Your task to perform on an android device: turn pop-ups on in chrome Image 0: 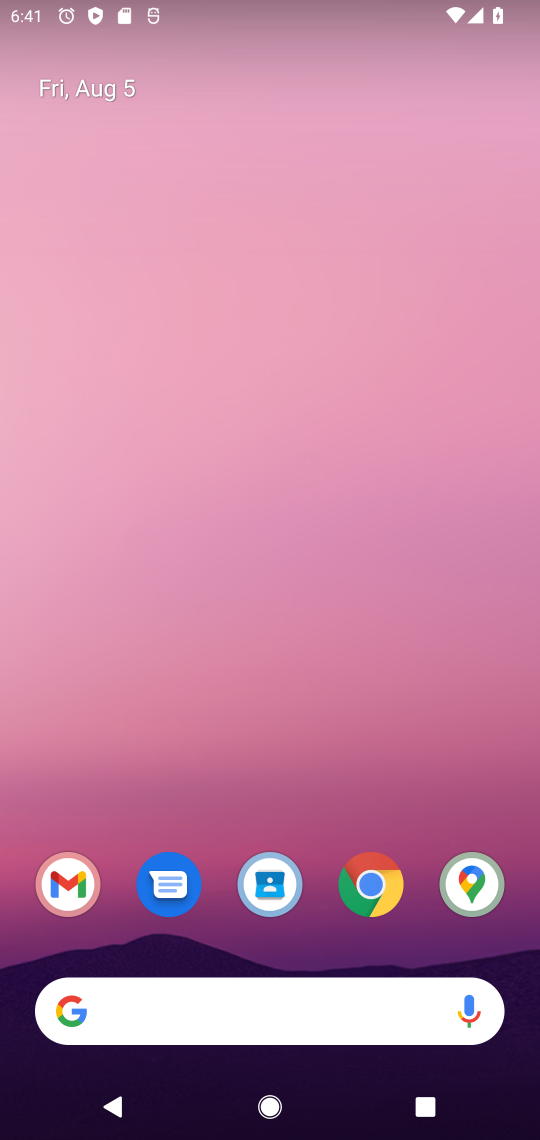
Step 0: press home button
Your task to perform on an android device: turn pop-ups on in chrome Image 1: 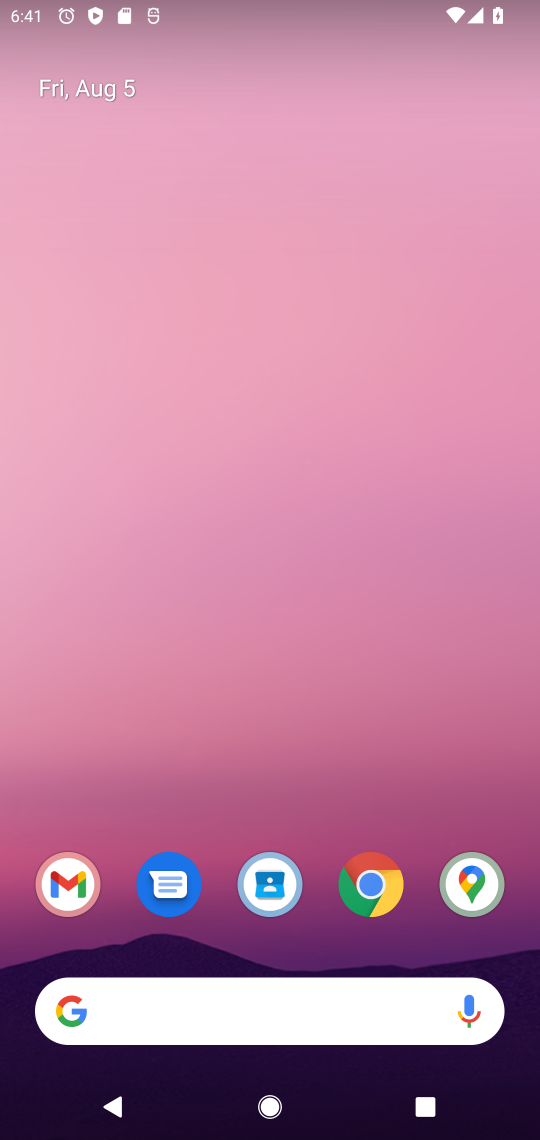
Step 1: drag from (312, 844) to (411, 4)
Your task to perform on an android device: turn pop-ups on in chrome Image 2: 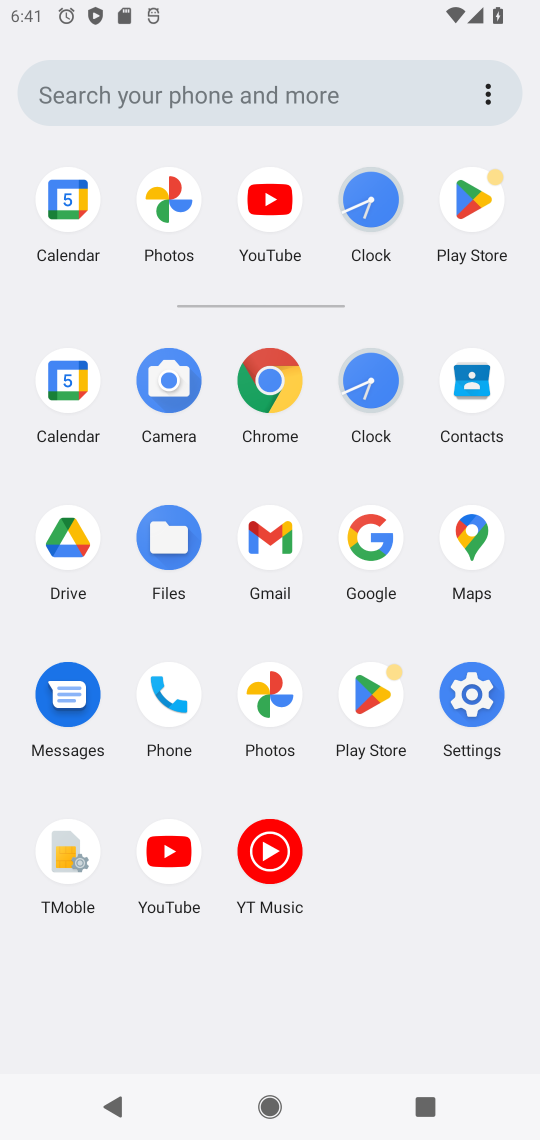
Step 2: click (264, 369)
Your task to perform on an android device: turn pop-ups on in chrome Image 3: 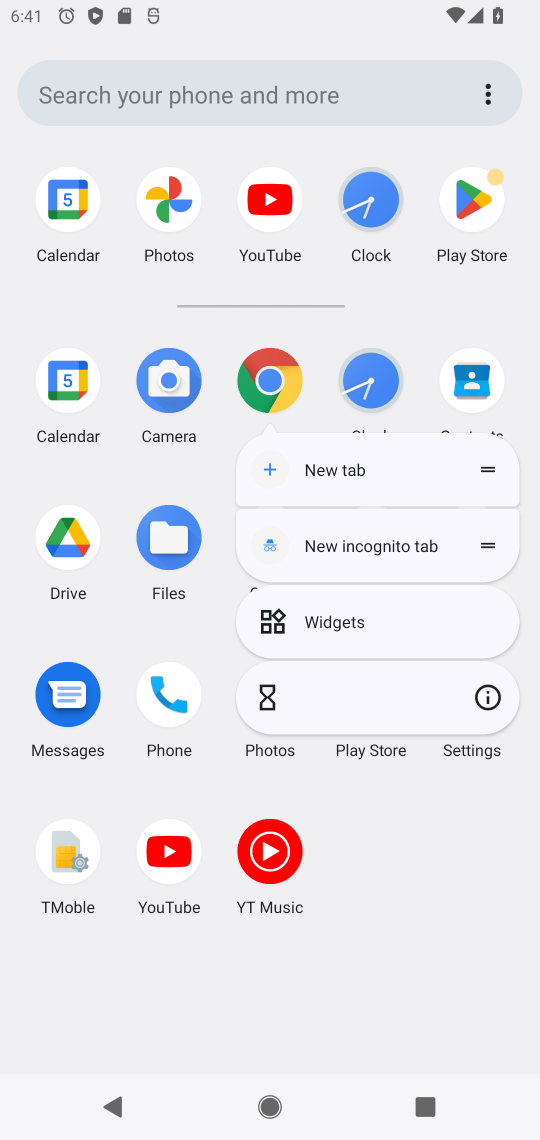
Step 3: click (264, 369)
Your task to perform on an android device: turn pop-ups on in chrome Image 4: 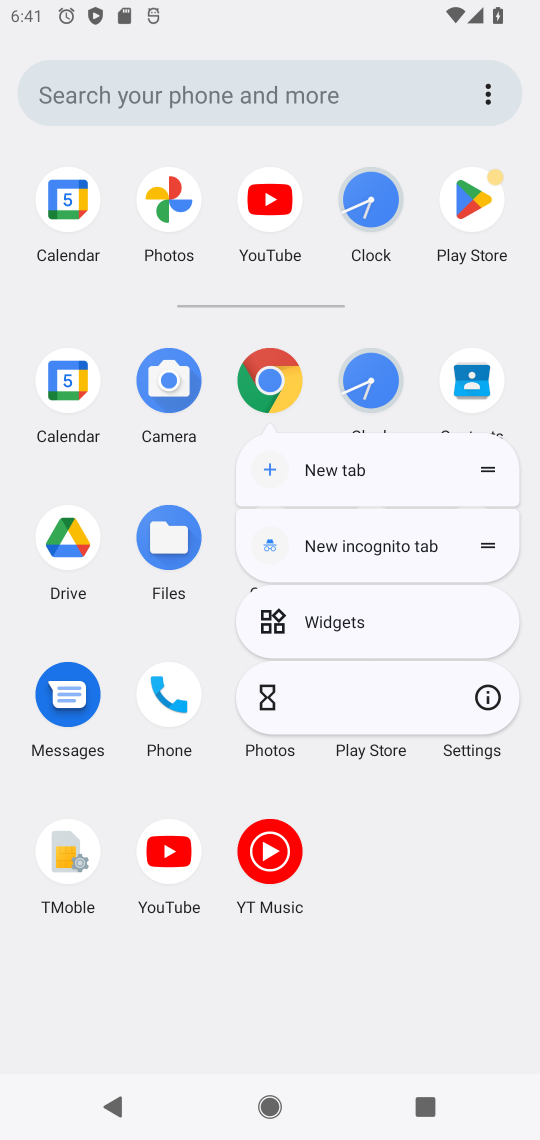
Step 4: click (267, 368)
Your task to perform on an android device: turn pop-ups on in chrome Image 5: 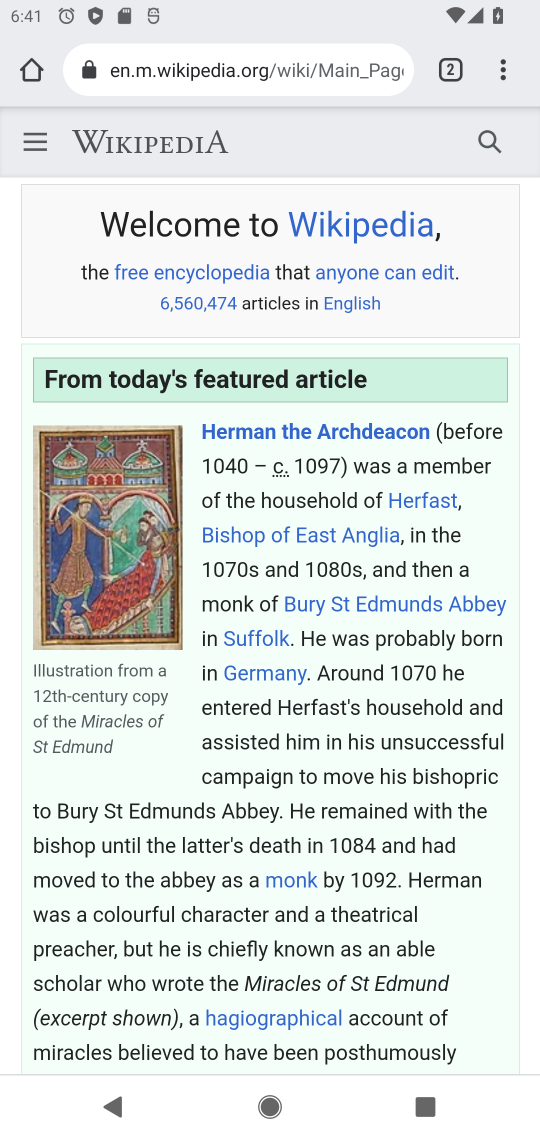
Step 5: click (505, 65)
Your task to perform on an android device: turn pop-ups on in chrome Image 6: 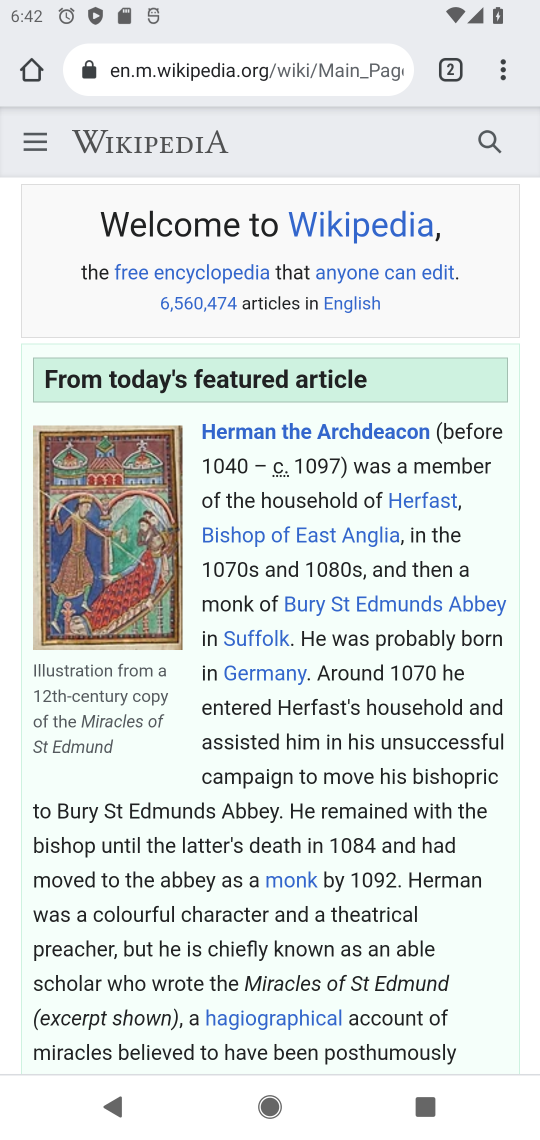
Step 6: click (497, 61)
Your task to perform on an android device: turn pop-ups on in chrome Image 7: 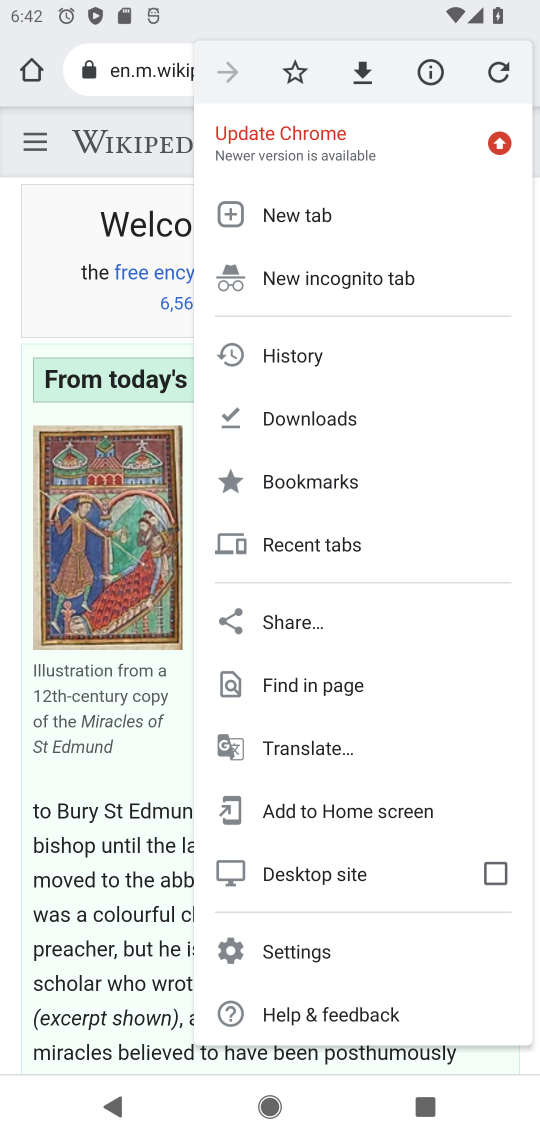
Step 7: click (341, 939)
Your task to perform on an android device: turn pop-ups on in chrome Image 8: 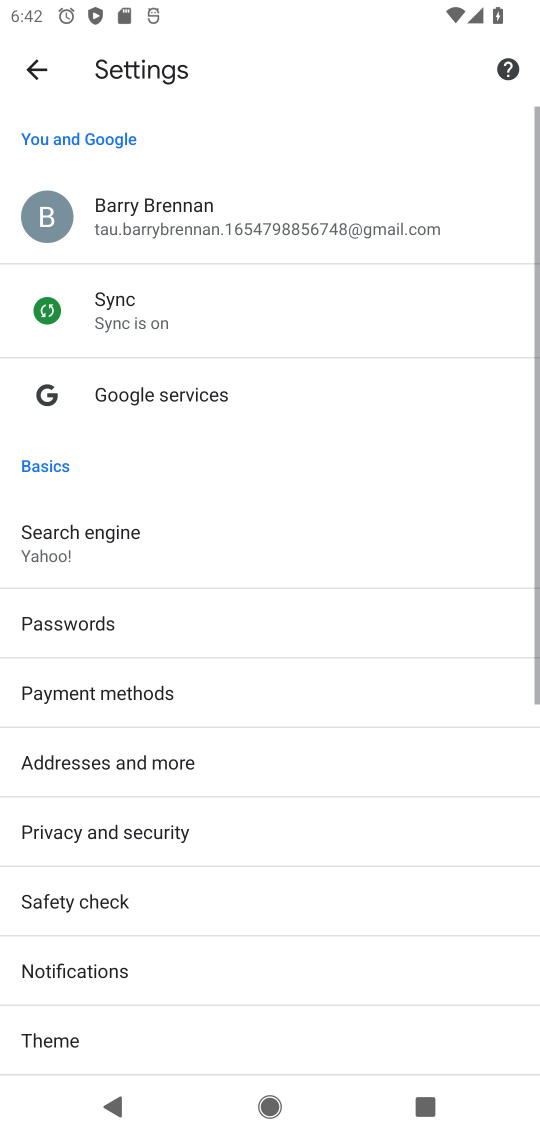
Step 8: drag from (273, 1027) to (321, 198)
Your task to perform on an android device: turn pop-ups on in chrome Image 9: 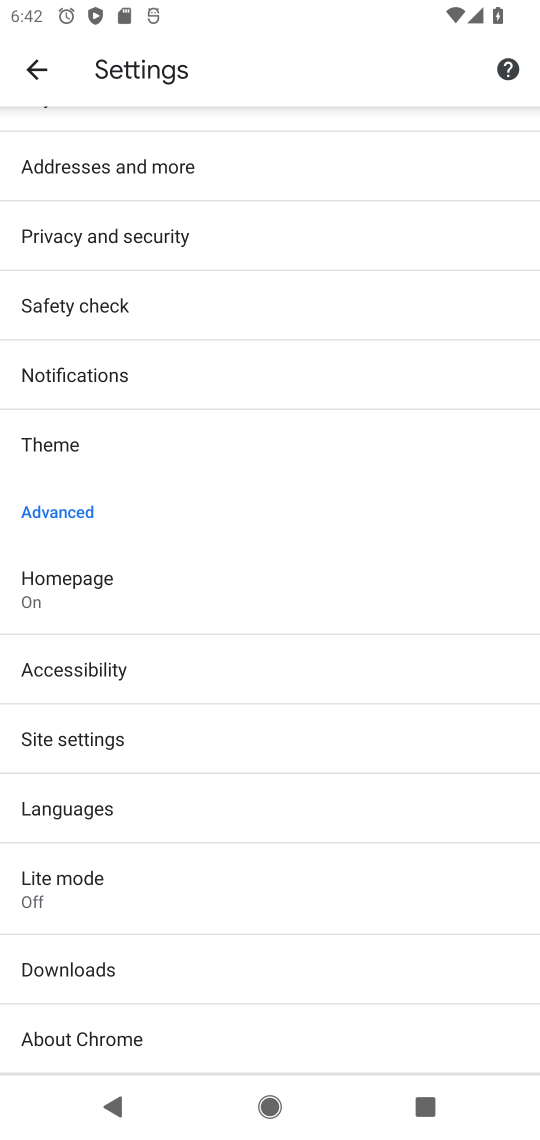
Step 9: click (169, 739)
Your task to perform on an android device: turn pop-ups on in chrome Image 10: 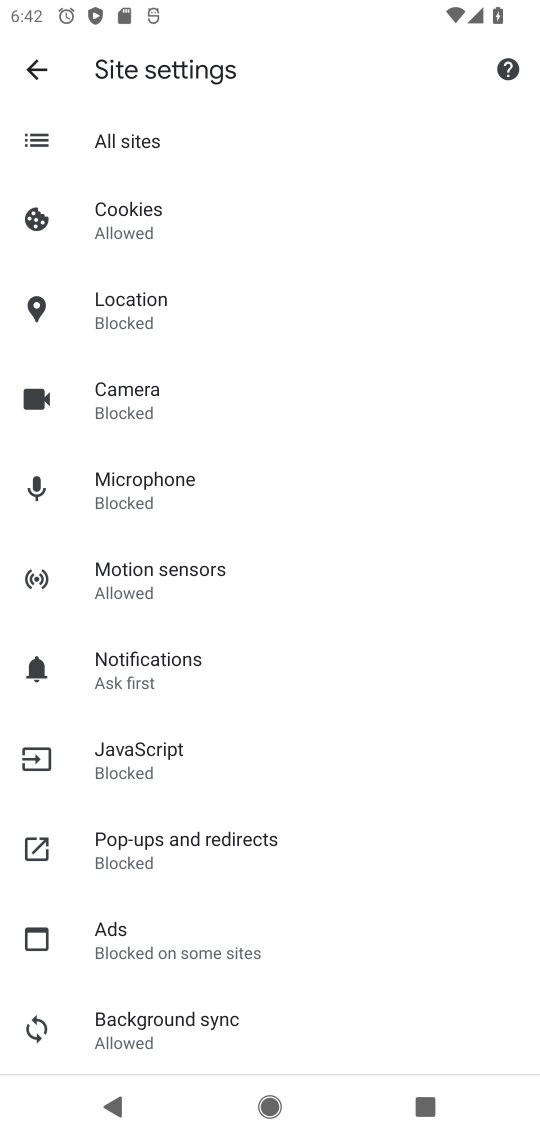
Step 10: click (198, 850)
Your task to perform on an android device: turn pop-ups on in chrome Image 11: 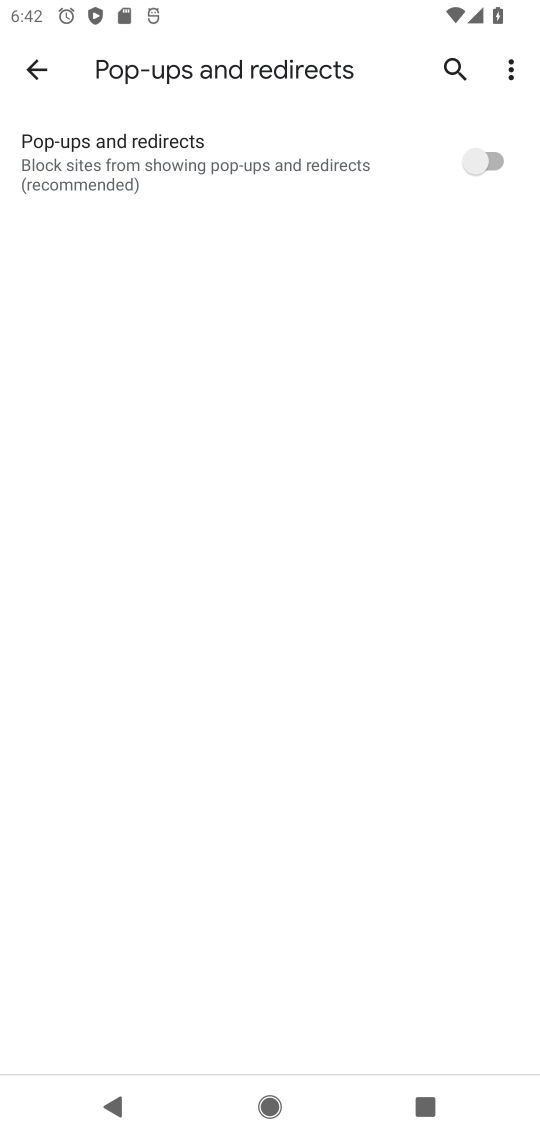
Step 11: click (489, 149)
Your task to perform on an android device: turn pop-ups on in chrome Image 12: 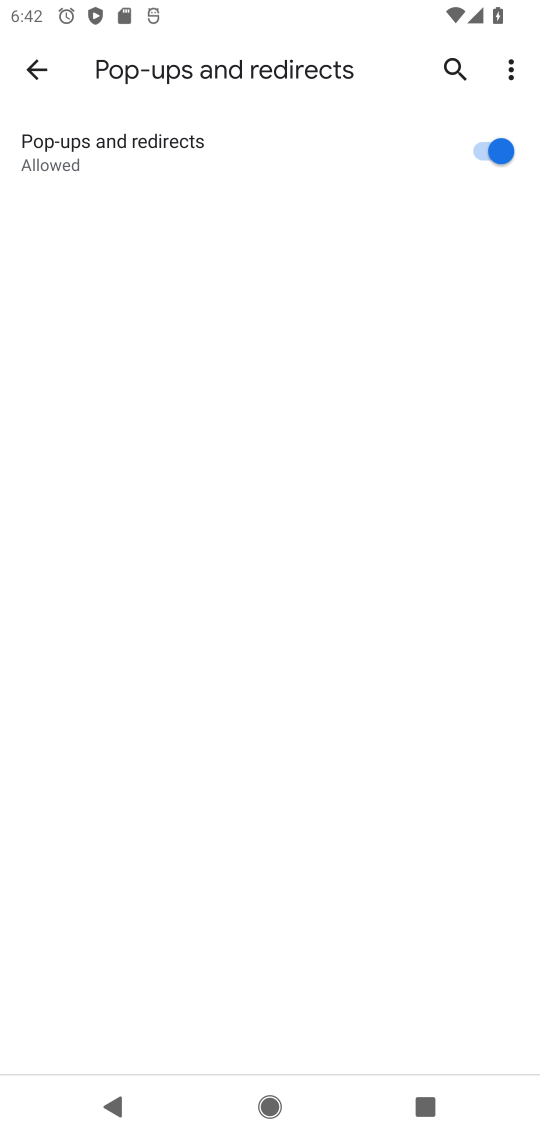
Step 12: task complete